Your task to perform on an android device: Go to Google Image 0: 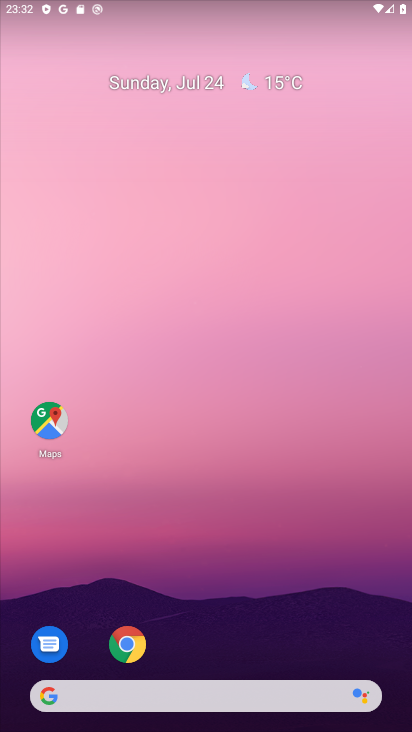
Step 0: drag from (195, 725) to (164, 374)
Your task to perform on an android device: Go to Google Image 1: 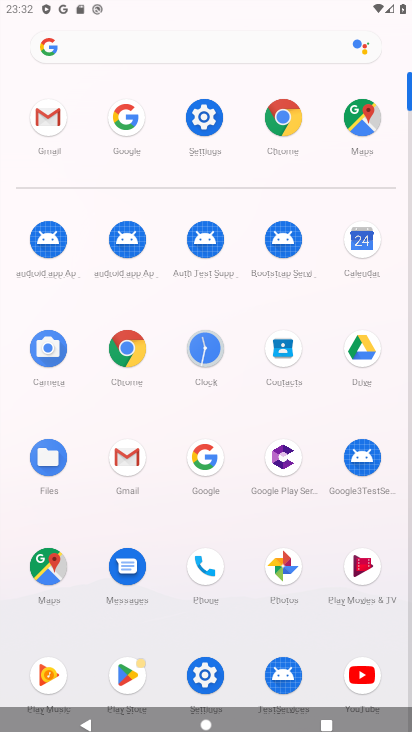
Step 1: click (210, 463)
Your task to perform on an android device: Go to Google Image 2: 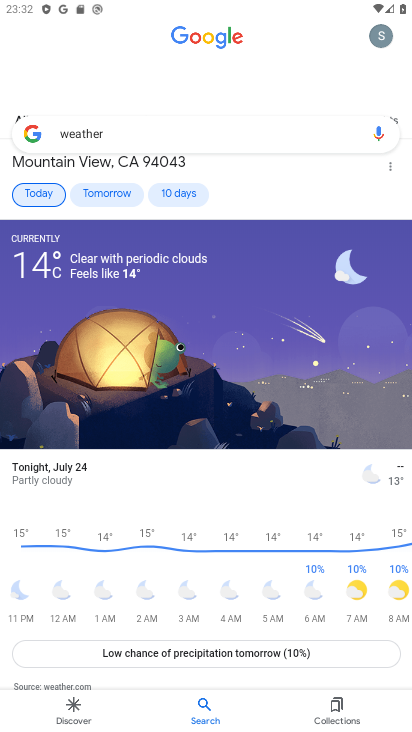
Step 2: task complete